Your task to perform on an android device: turn pop-ups off in chrome Image 0: 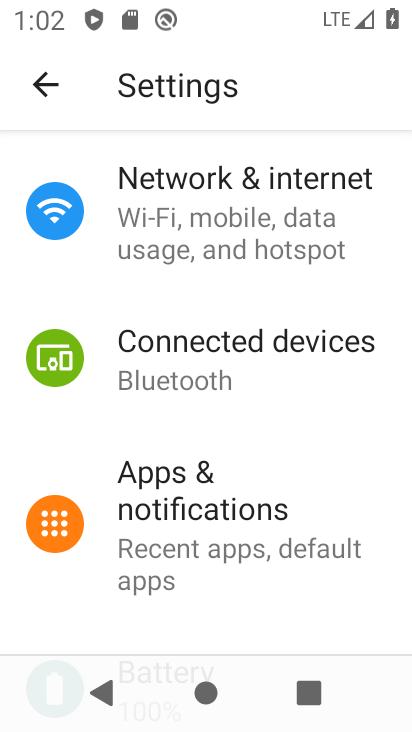
Step 0: press home button
Your task to perform on an android device: turn pop-ups off in chrome Image 1: 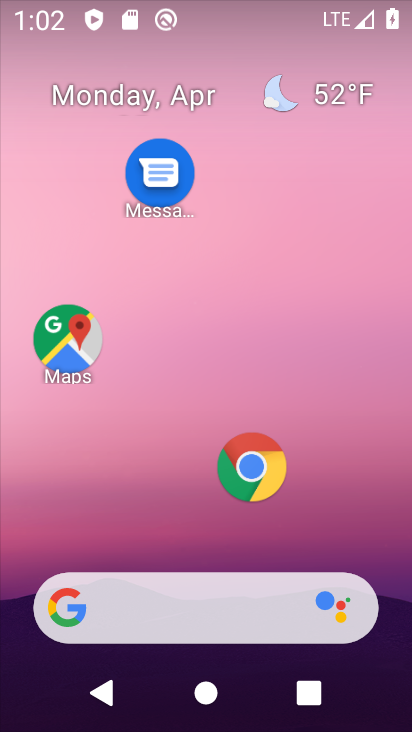
Step 1: click (234, 454)
Your task to perform on an android device: turn pop-ups off in chrome Image 2: 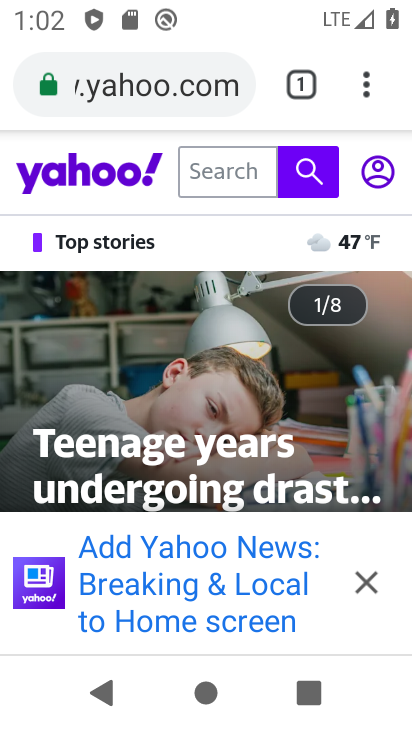
Step 2: drag from (364, 85) to (111, 510)
Your task to perform on an android device: turn pop-ups off in chrome Image 3: 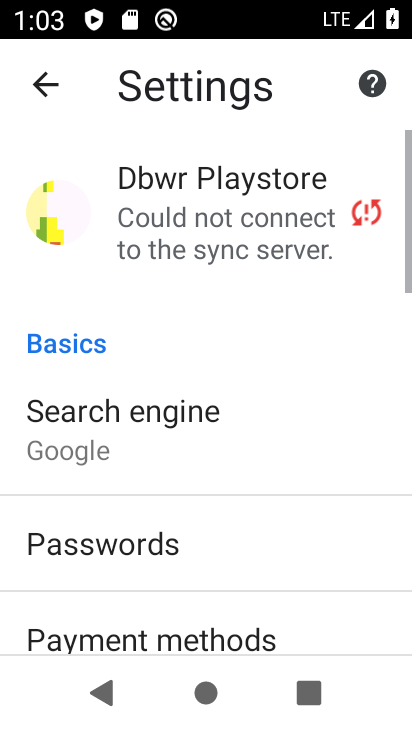
Step 3: drag from (234, 568) to (310, 225)
Your task to perform on an android device: turn pop-ups off in chrome Image 4: 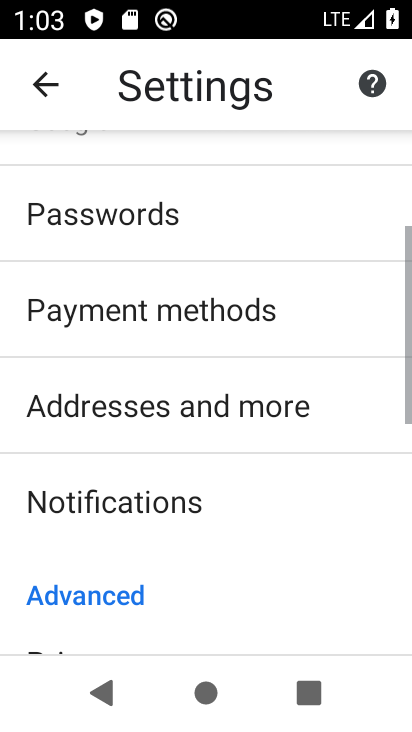
Step 4: drag from (198, 605) to (277, 302)
Your task to perform on an android device: turn pop-ups off in chrome Image 5: 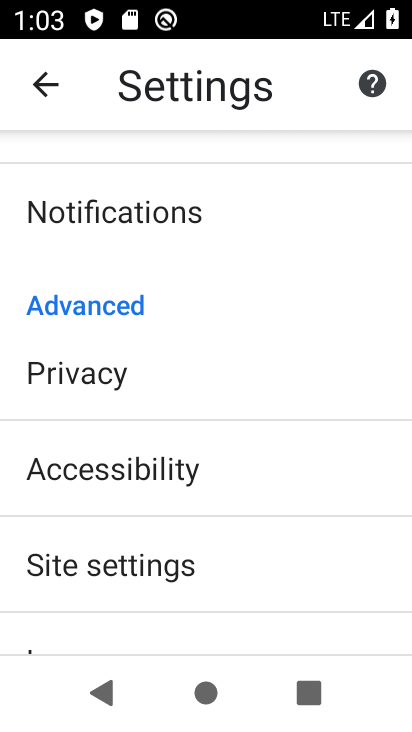
Step 5: click (182, 544)
Your task to perform on an android device: turn pop-ups off in chrome Image 6: 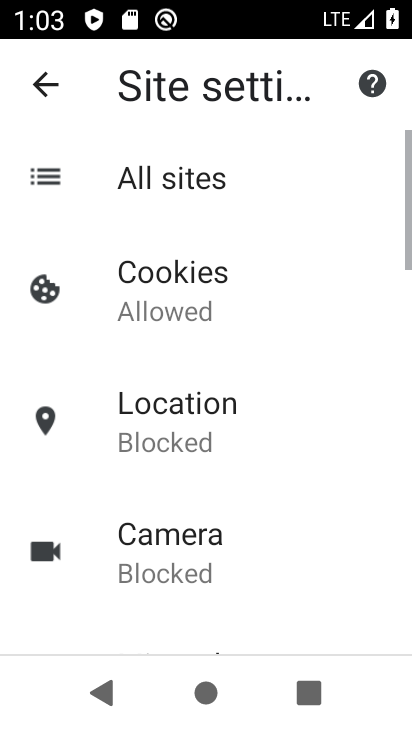
Step 6: drag from (245, 545) to (304, 203)
Your task to perform on an android device: turn pop-ups off in chrome Image 7: 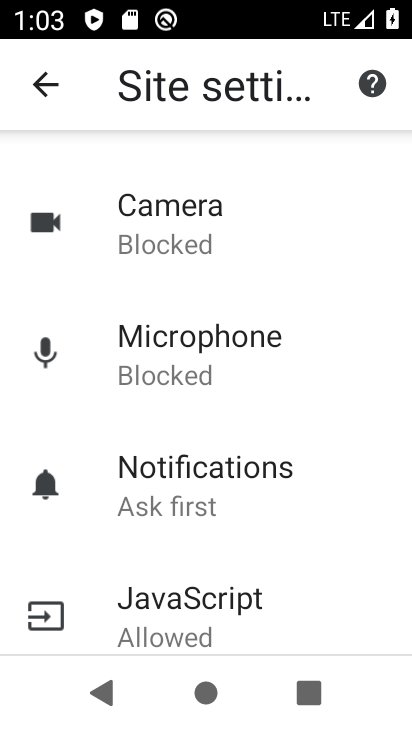
Step 7: drag from (229, 568) to (293, 230)
Your task to perform on an android device: turn pop-ups off in chrome Image 8: 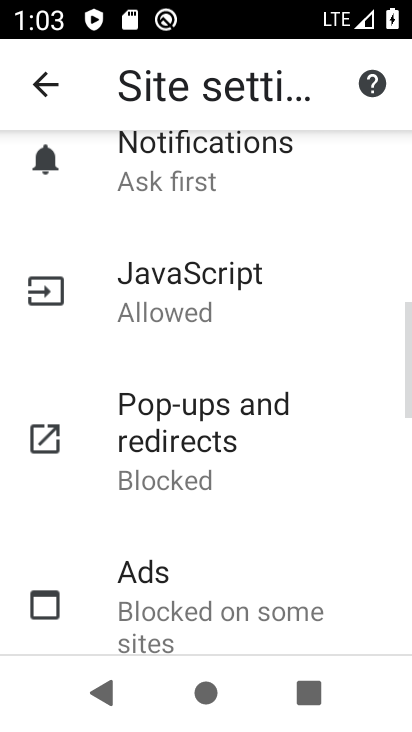
Step 8: click (217, 403)
Your task to perform on an android device: turn pop-ups off in chrome Image 9: 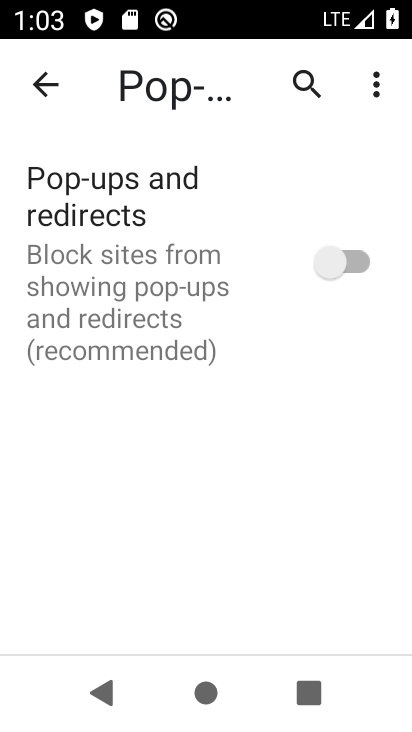
Step 9: task complete